Your task to perform on an android device: find which apps use the phone's location Image 0: 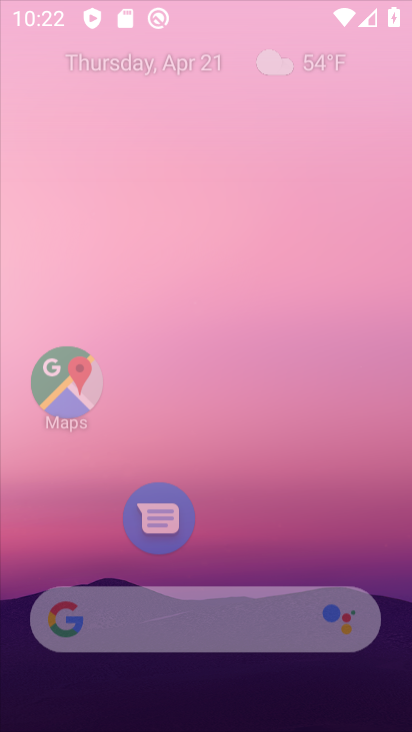
Step 0: click (296, 93)
Your task to perform on an android device: find which apps use the phone's location Image 1: 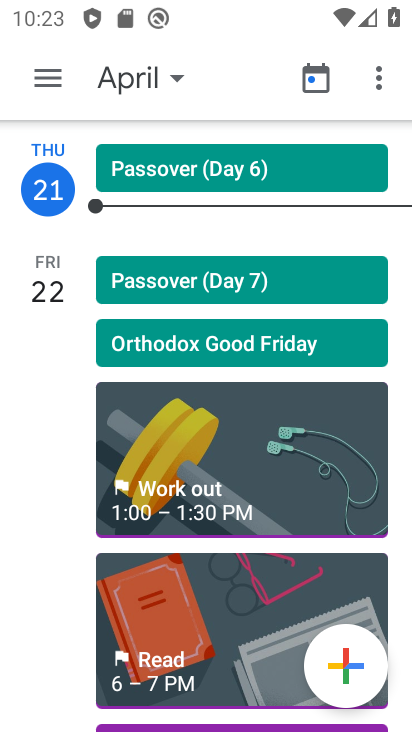
Step 1: press back button
Your task to perform on an android device: find which apps use the phone's location Image 2: 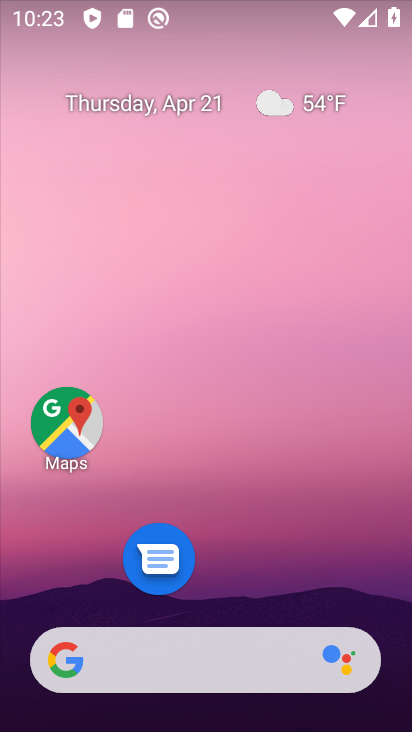
Step 2: drag from (268, 459) to (330, 69)
Your task to perform on an android device: find which apps use the phone's location Image 3: 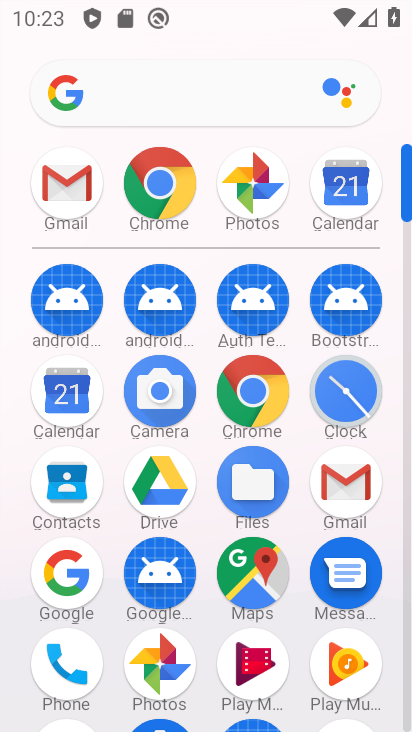
Step 3: drag from (178, 608) to (228, 210)
Your task to perform on an android device: find which apps use the phone's location Image 4: 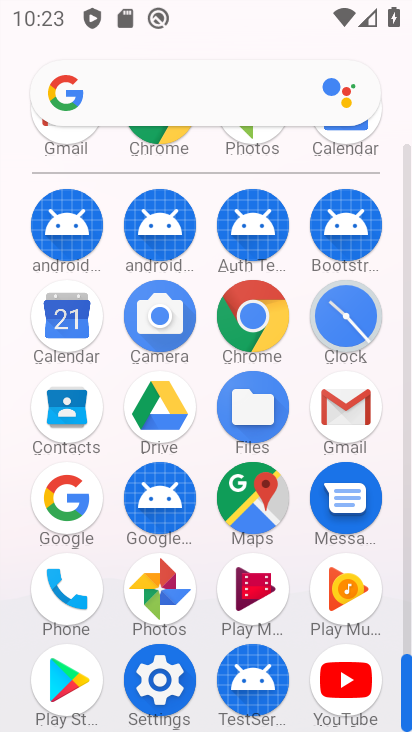
Step 4: click (160, 677)
Your task to perform on an android device: find which apps use the phone's location Image 5: 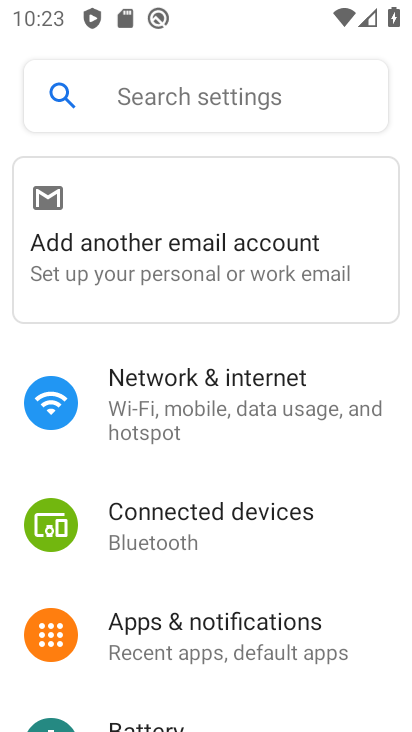
Step 5: drag from (213, 656) to (310, 159)
Your task to perform on an android device: find which apps use the phone's location Image 6: 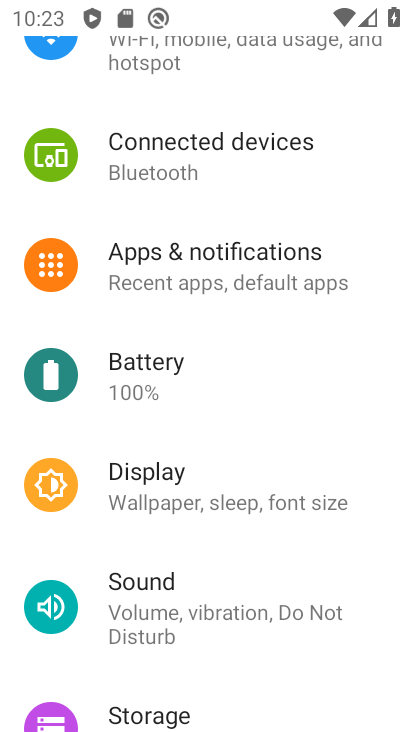
Step 6: drag from (196, 590) to (233, 239)
Your task to perform on an android device: find which apps use the phone's location Image 7: 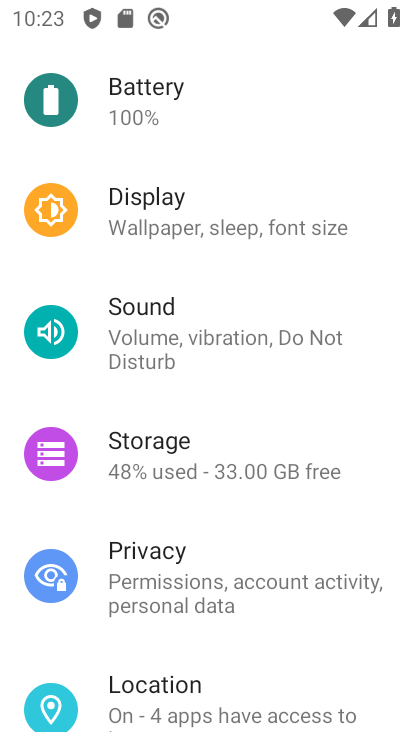
Step 7: click (166, 694)
Your task to perform on an android device: find which apps use the phone's location Image 8: 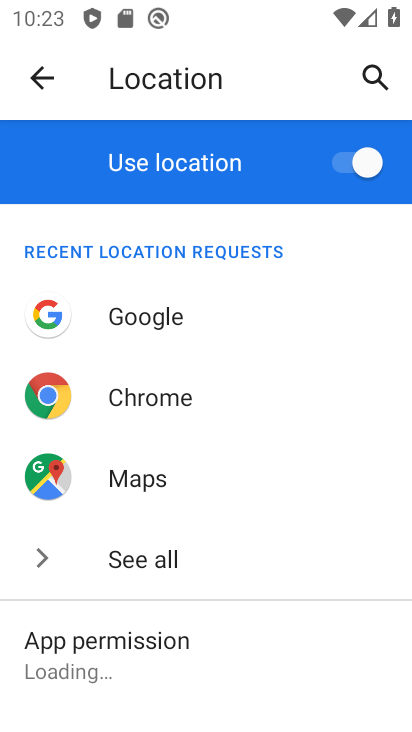
Step 8: drag from (169, 661) to (273, 203)
Your task to perform on an android device: find which apps use the phone's location Image 9: 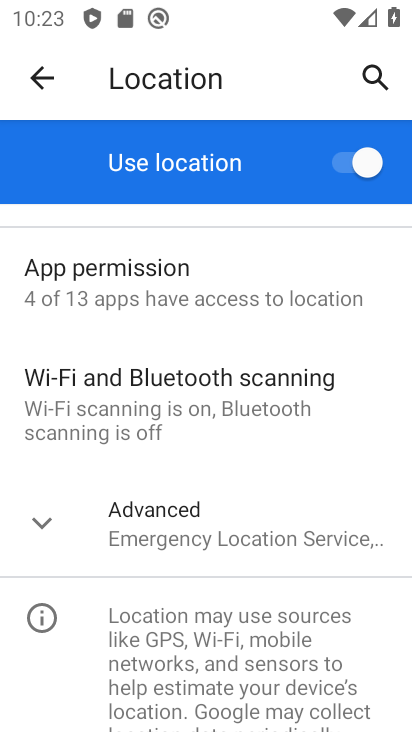
Step 9: click (127, 269)
Your task to perform on an android device: find which apps use the phone's location Image 10: 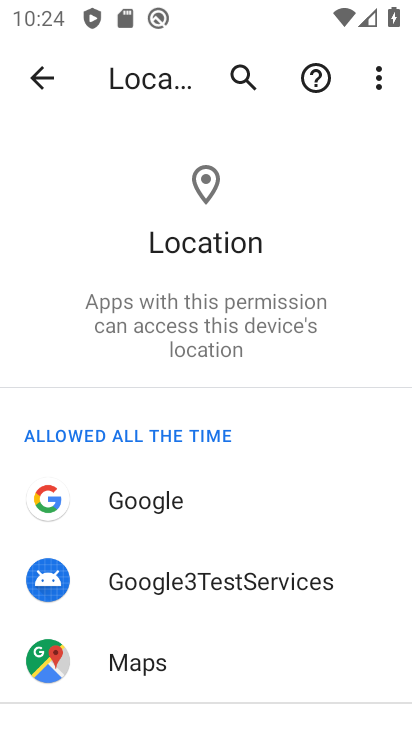
Step 10: task complete